Your task to perform on an android device: turn off notifications settings in the gmail app Image 0: 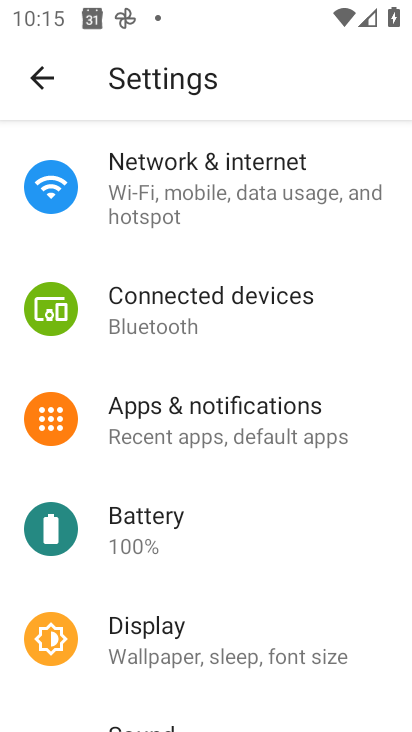
Step 0: press home button
Your task to perform on an android device: turn off notifications settings in the gmail app Image 1: 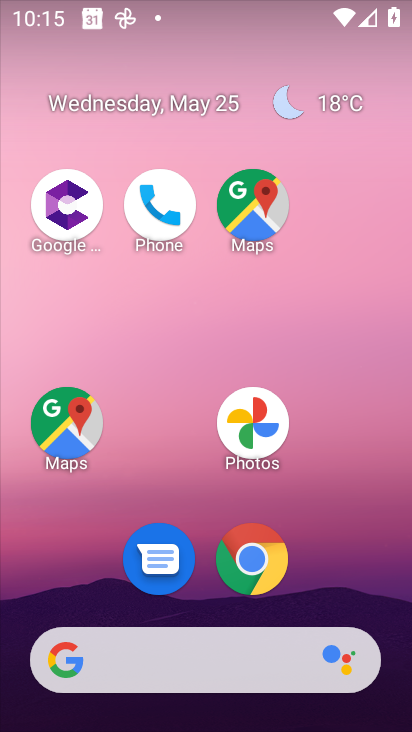
Step 1: drag from (345, 556) to (255, 62)
Your task to perform on an android device: turn off notifications settings in the gmail app Image 2: 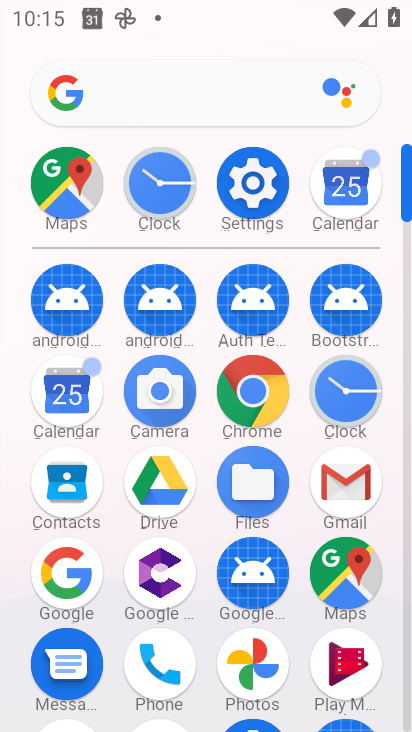
Step 2: click (351, 483)
Your task to perform on an android device: turn off notifications settings in the gmail app Image 3: 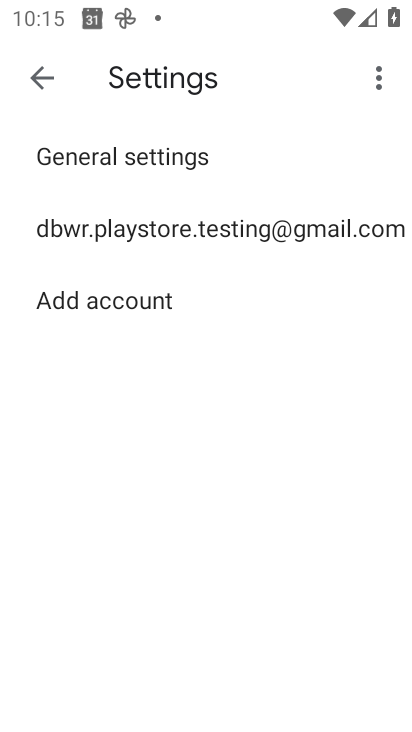
Step 3: click (121, 154)
Your task to perform on an android device: turn off notifications settings in the gmail app Image 4: 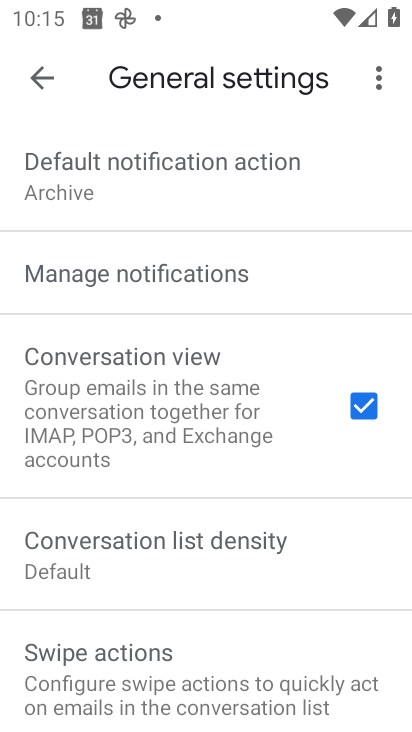
Step 4: click (158, 266)
Your task to perform on an android device: turn off notifications settings in the gmail app Image 5: 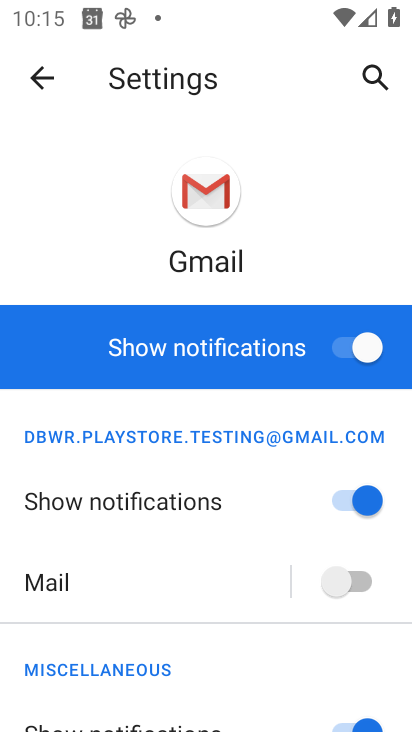
Step 5: click (343, 350)
Your task to perform on an android device: turn off notifications settings in the gmail app Image 6: 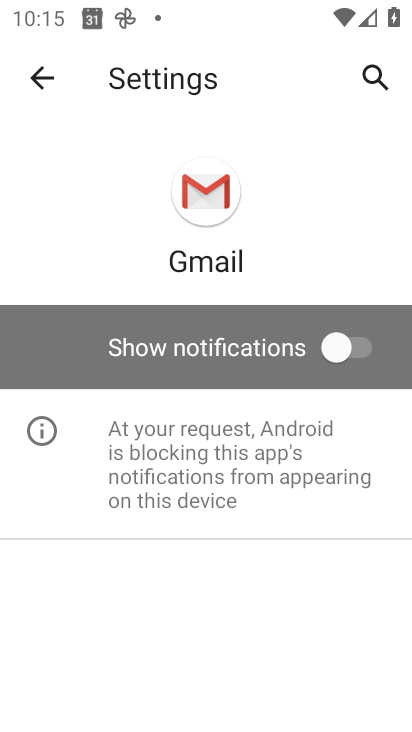
Step 6: task complete